Your task to perform on an android device: turn smart compose on in the gmail app Image 0: 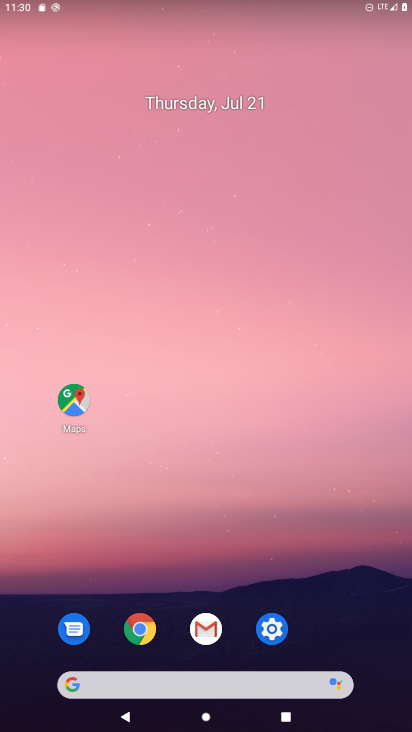
Step 0: click (210, 626)
Your task to perform on an android device: turn smart compose on in the gmail app Image 1: 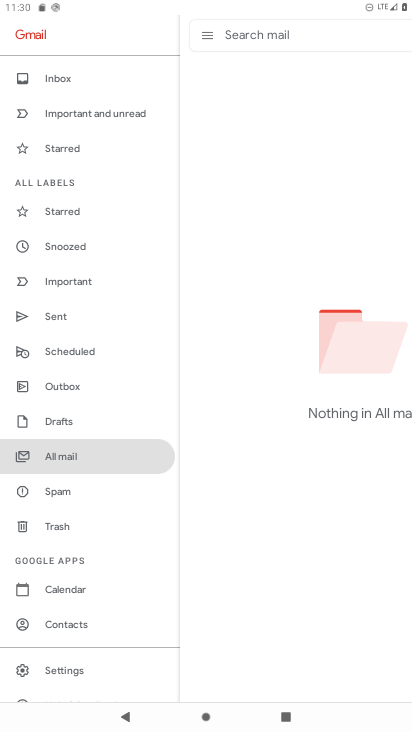
Step 1: click (59, 663)
Your task to perform on an android device: turn smart compose on in the gmail app Image 2: 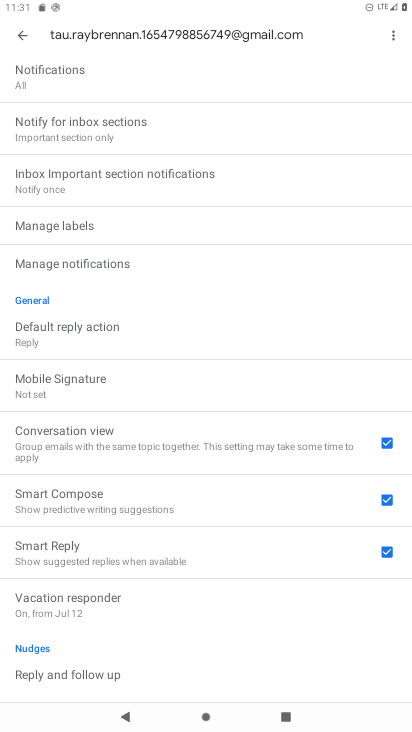
Step 2: click (154, 508)
Your task to perform on an android device: turn smart compose on in the gmail app Image 3: 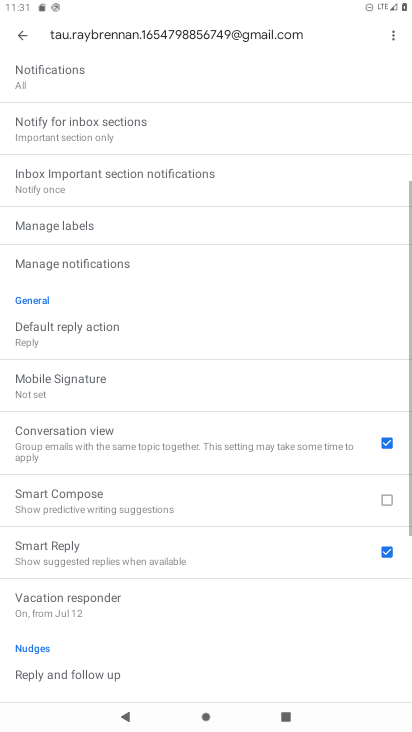
Step 3: click (154, 508)
Your task to perform on an android device: turn smart compose on in the gmail app Image 4: 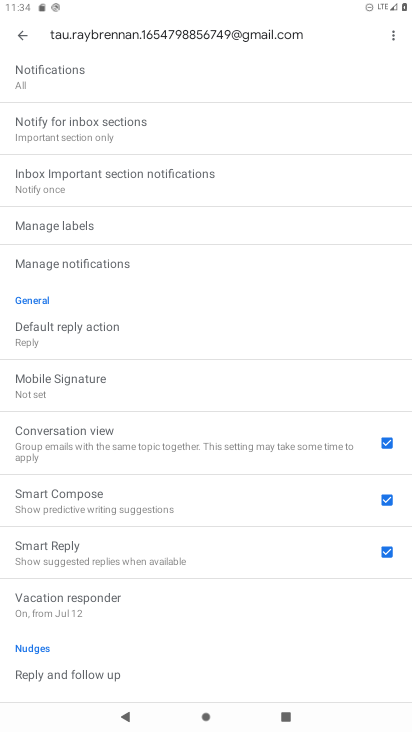
Step 4: task complete